Your task to perform on an android device: empty trash in the gmail app Image 0: 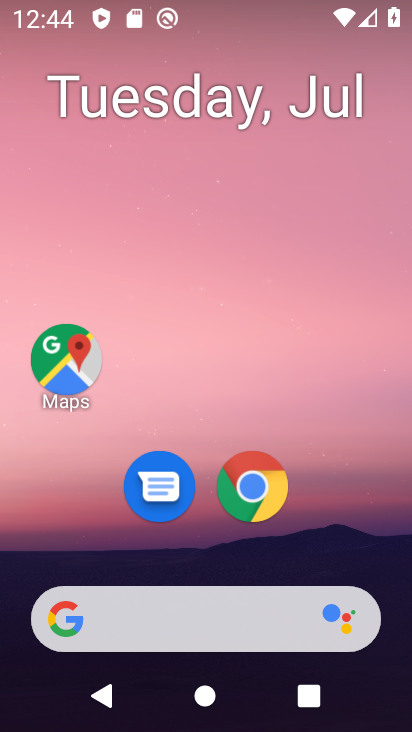
Step 0: drag from (366, 539) to (372, 96)
Your task to perform on an android device: empty trash in the gmail app Image 1: 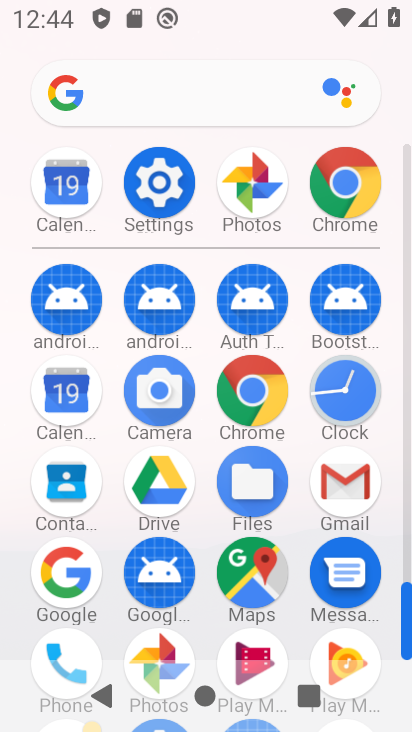
Step 1: click (350, 485)
Your task to perform on an android device: empty trash in the gmail app Image 2: 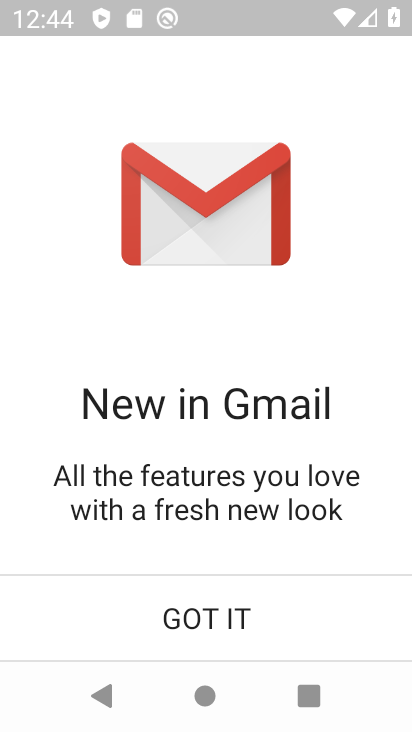
Step 2: click (243, 627)
Your task to perform on an android device: empty trash in the gmail app Image 3: 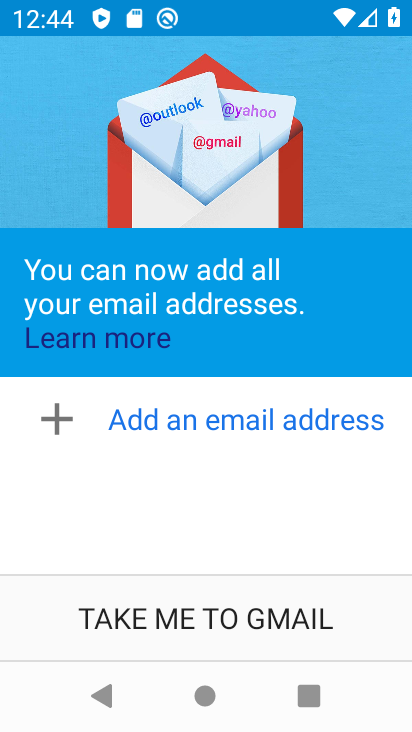
Step 3: click (243, 627)
Your task to perform on an android device: empty trash in the gmail app Image 4: 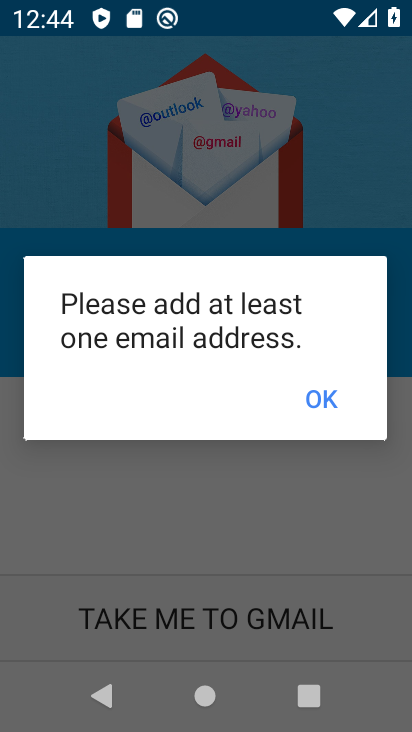
Step 4: task complete